Your task to perform on an android device: Open the map Image 0: 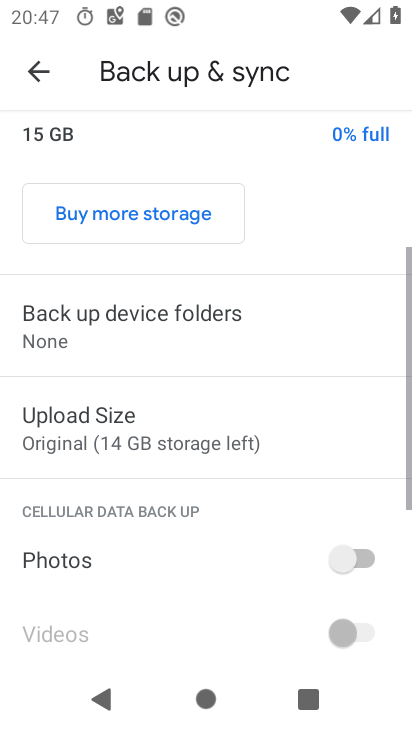
Step 0: press home button
Your task to perform on an android device: Open the map Image 1: 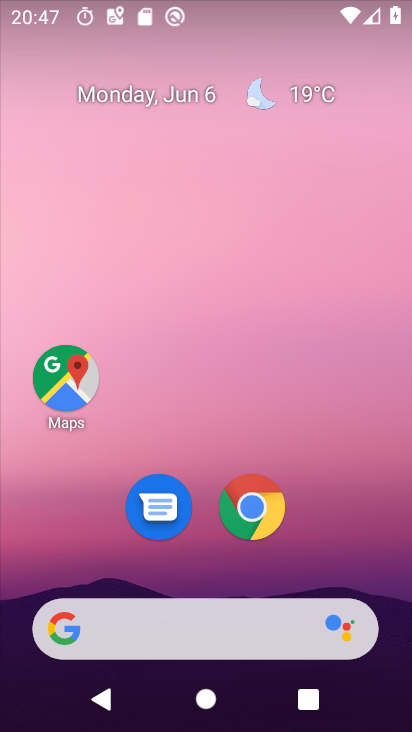
Step 1: click (75, 396)
Your task to perform on an android device: Open the map Image 2: 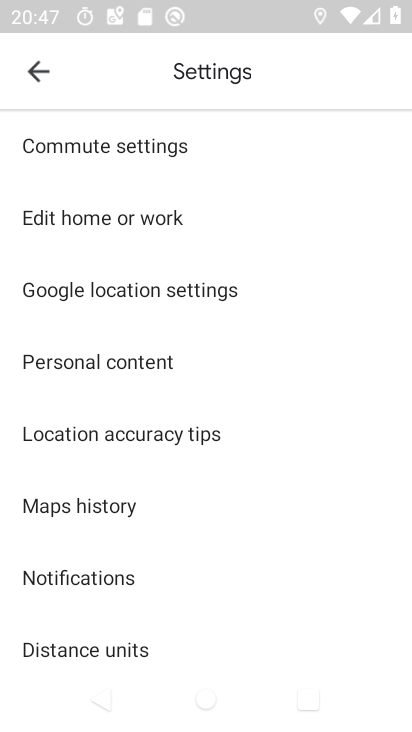
Step 2: task complete